Your task to perform on an android device: star an email in the gmail app Image 0: 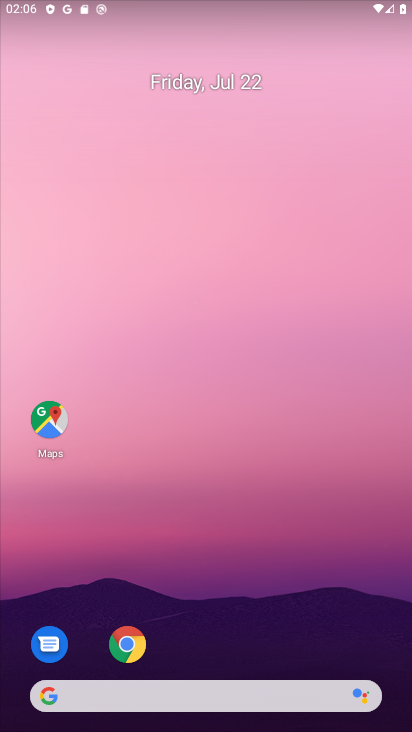
Step 0: drag from (227, 682) to (163, 89)
Your task to perform on an android device: star an email in the gmail app Image 1: 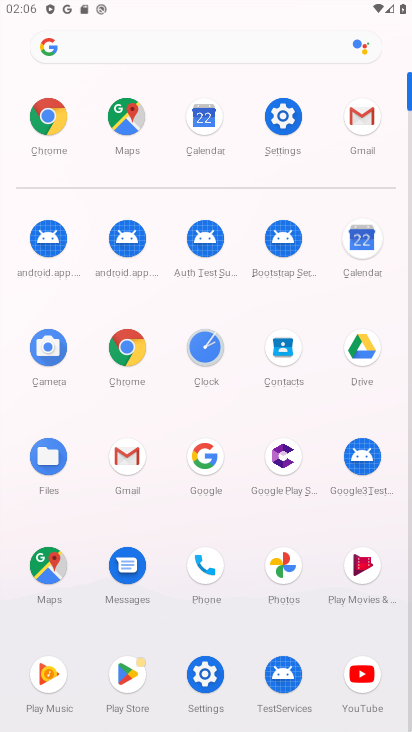
Step 1: click (371, 119)
Your task to perform on an android device: star an email in the gmail app Image 2: 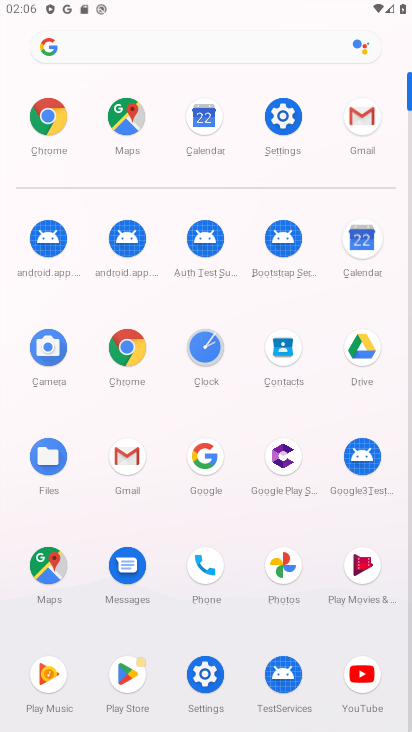
Step 2: click (371, 119)
Your task to perform on an android device: star an email in the gmail app Image 3: 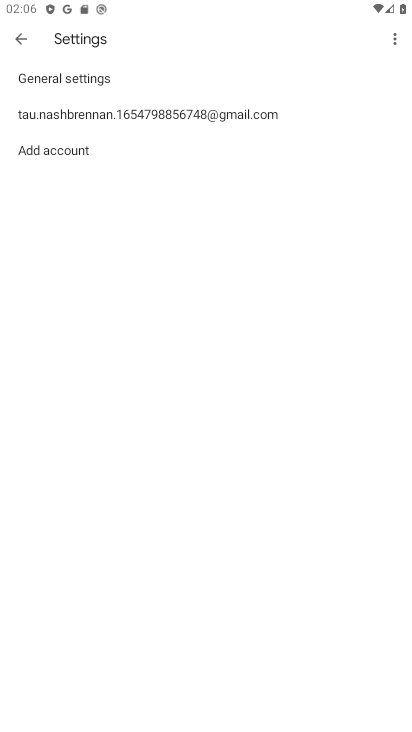
Step 3: click (22, 40)
Your task to perform on an android device: star an email in the gmail app Image 4: 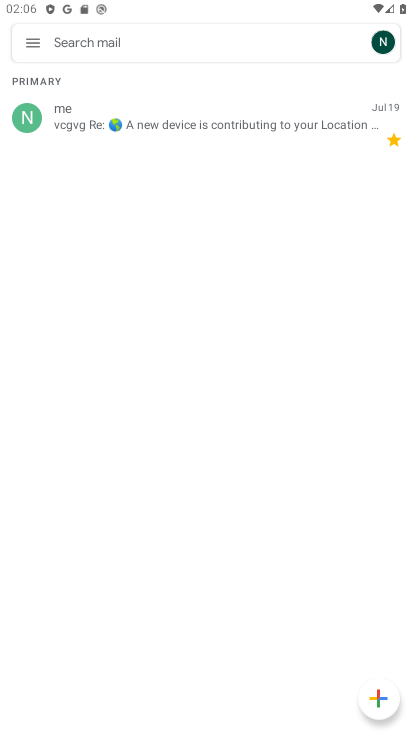
Step 4: task complete